Your task to perform on an android device: Open network settings Image 0: 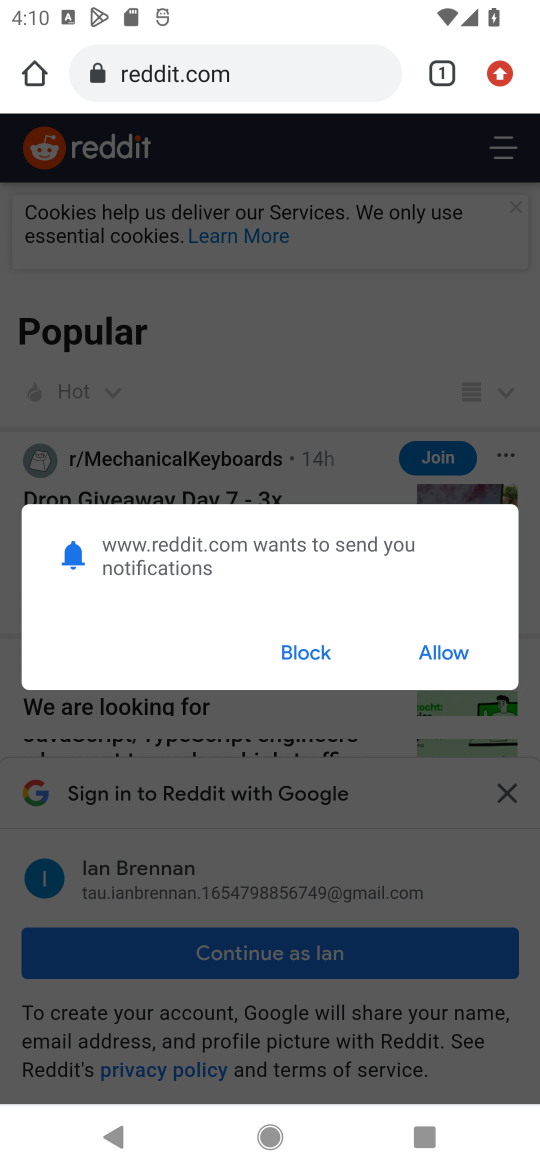
Step 0: press home button
Your task to perform on an android device: Open network settings Image 1: 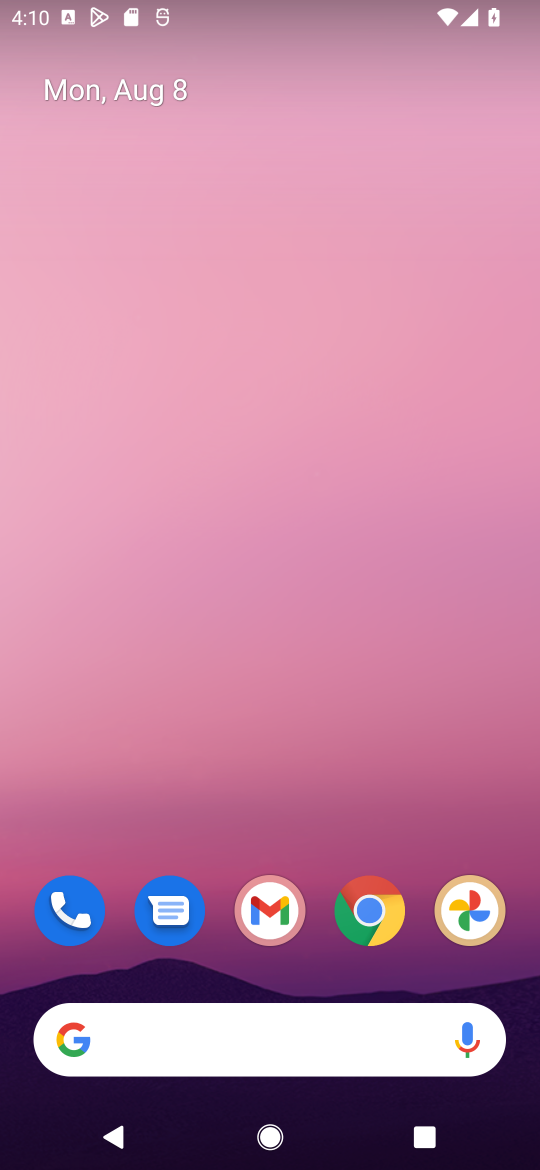
Step 1: drag from (150, 833) to (117, 9)
Your task to perform on an android device: Open network settings Image 2: 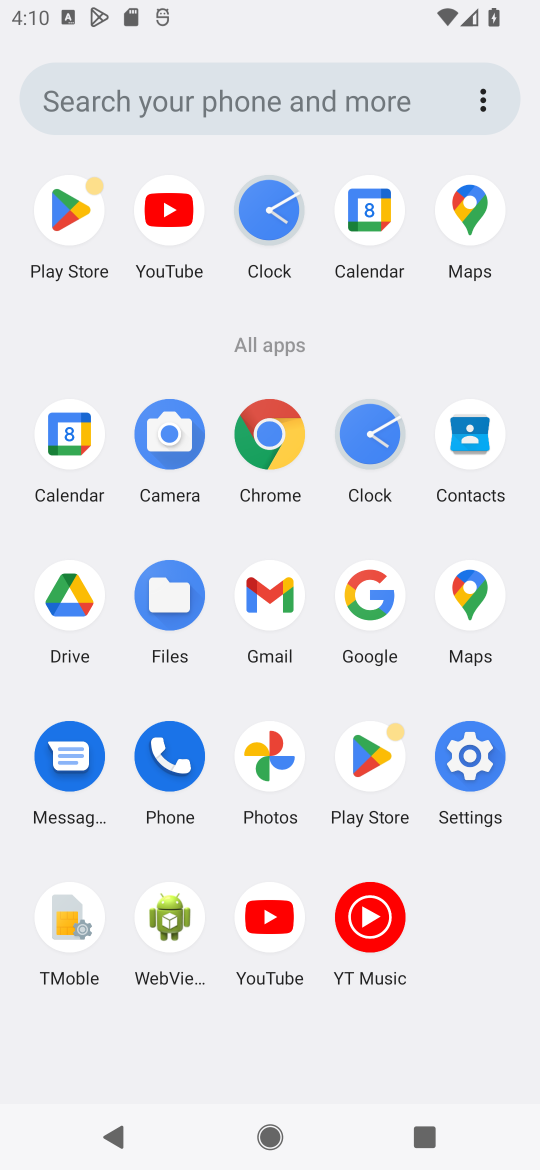
Step 2: click (471, 746)
Your task to perform on an android device: Open network settings Image 3: 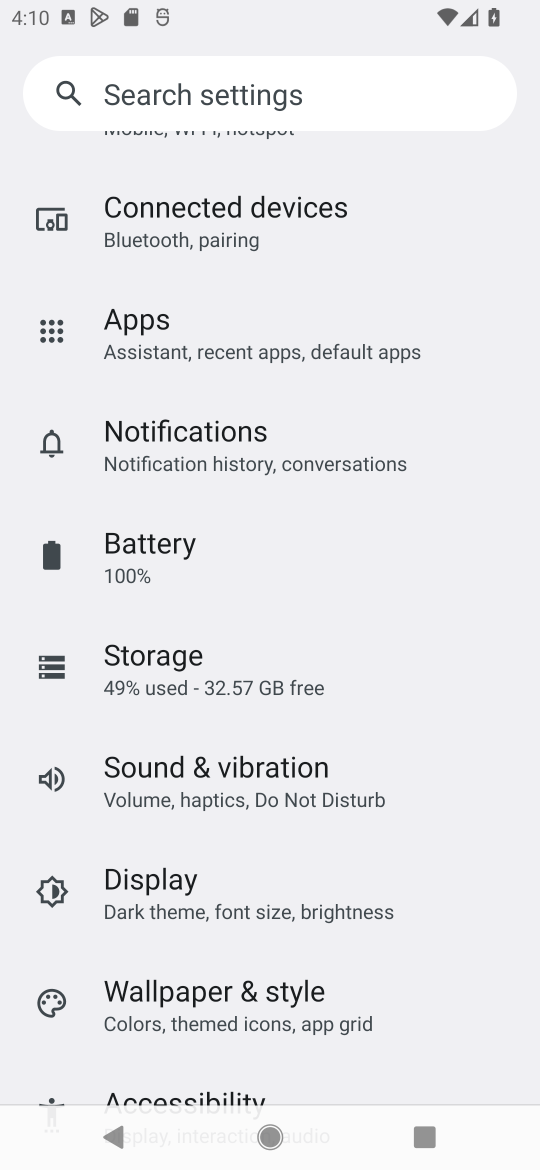
Step 3: drag from (401, 436) to (405, 903)
Your task to perform on an android device: Open network settings Image 4: 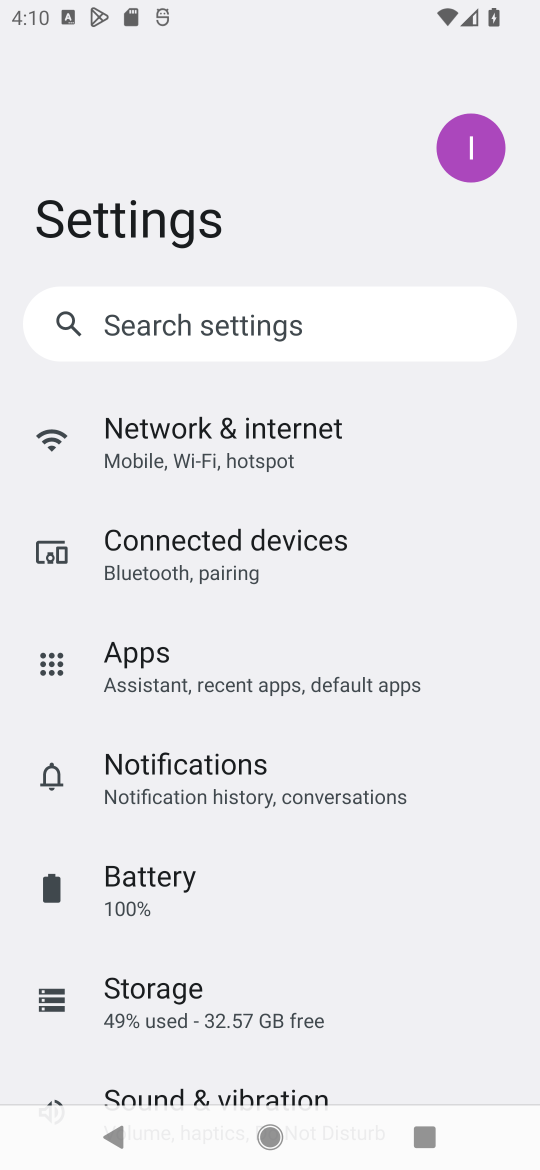
Step 4: click (131, 435)
Your task to perform on an android device: Open network settings Image 5: 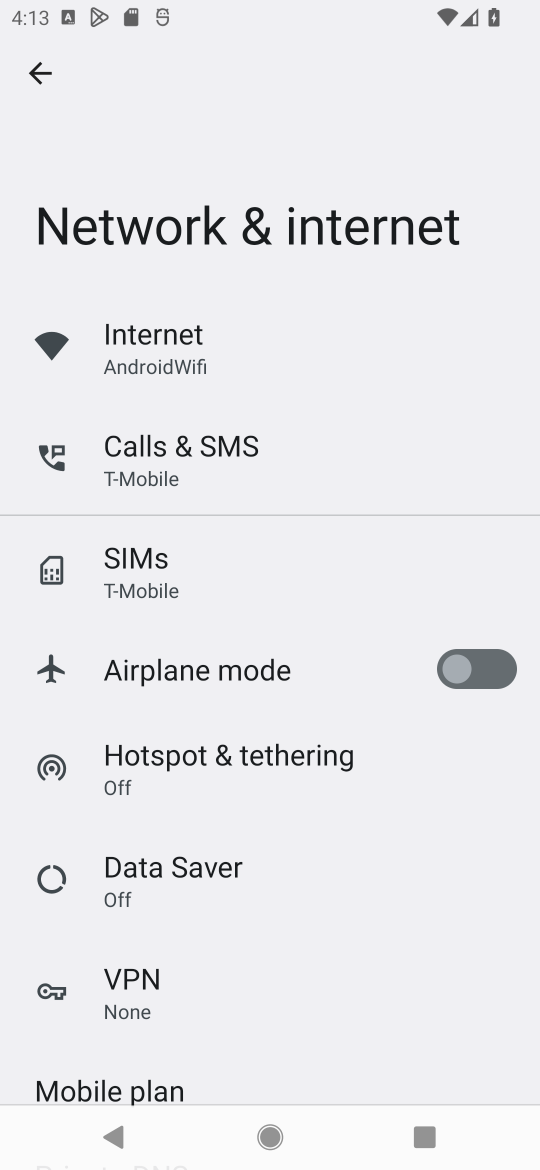
Step 5: task complete